Your task to perform on an android device: turn off priority inbox in the gmail app Image 0: 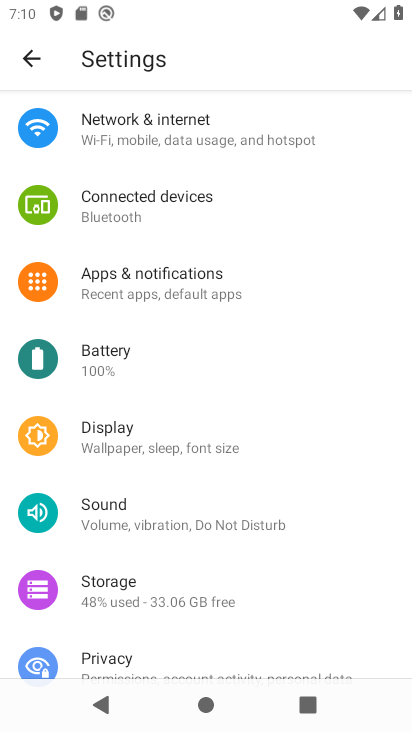
Step 0: press home button
Your task to perform on an android device: turn off priority inbox in the gmail app Image 1: 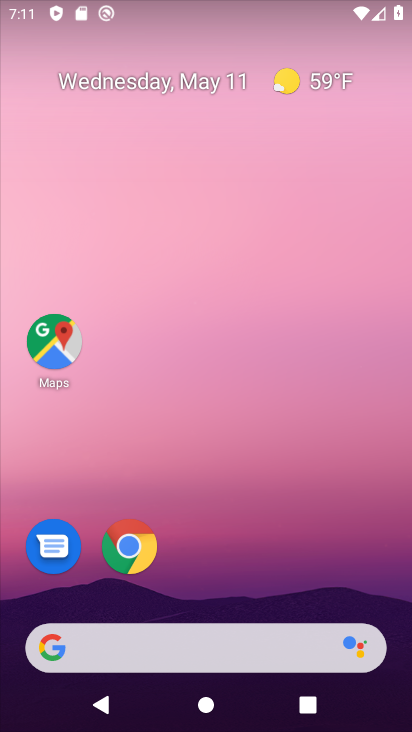
Step 1: drag from (329, 569) to (285, 46)
Your task to perform on an android device: turn off priority inbox in the gmail app Image 2: 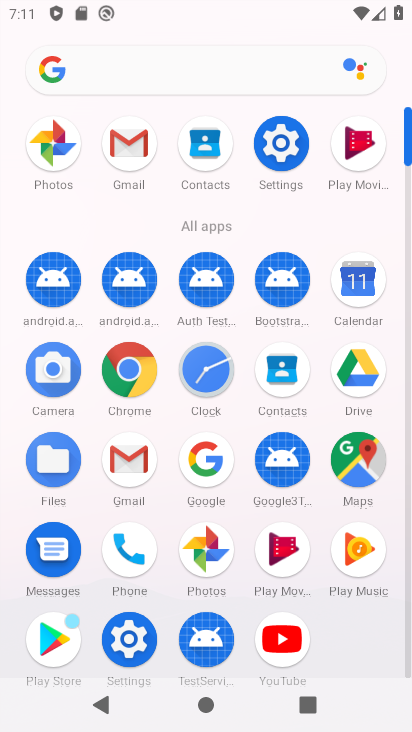
Step 2: click (142, 452)
Your task to perform on an android device: turn off priority inbox in the gmail app Image 3: 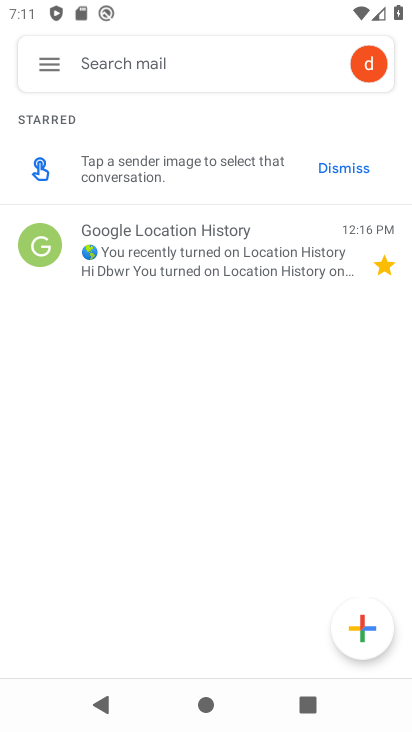
Step 3: click (48, 69)
Your task to perform on an android device: turn off priority inbox in the gmail app Image 4: 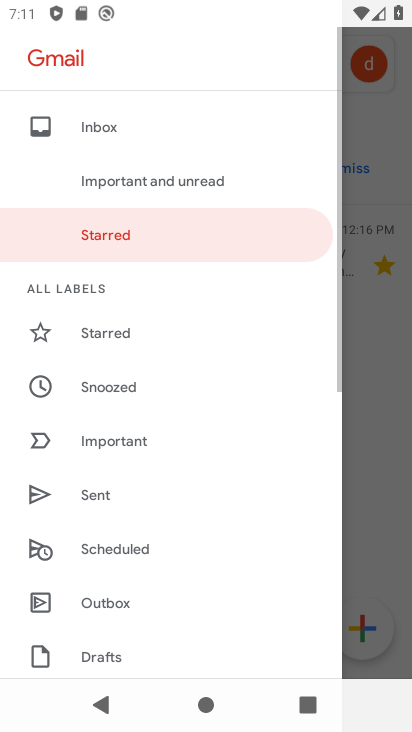
Step 4: drag from (169, 460) to (146, 121)
Your task to perform on an android device: turn off priority inbox in the gmail app Image 5: 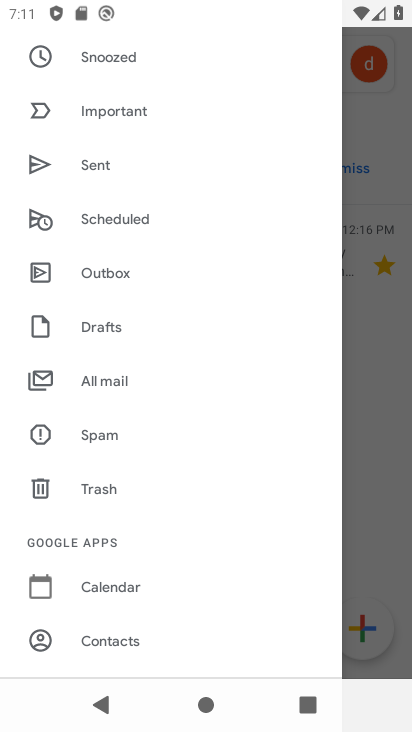
Step 5: drag from (160, 586) to (122, 311)
Your task to perform on an android device: turn off priority inbox in the gmail app Image 6: 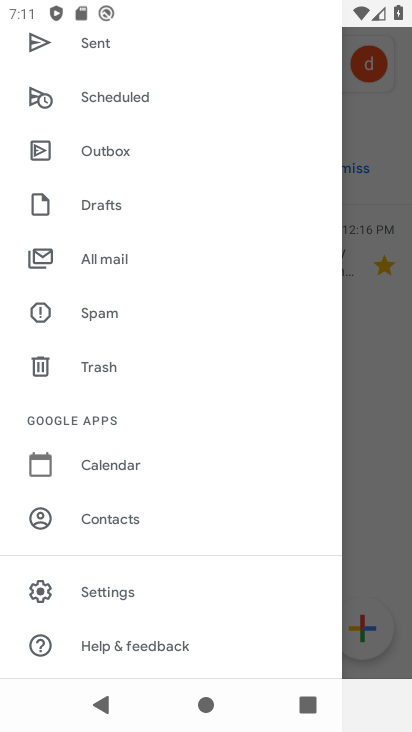
Step 6: click (138, 591)
Your task to perform on an android device: turn off priority inbox in the gmail app Image 7: 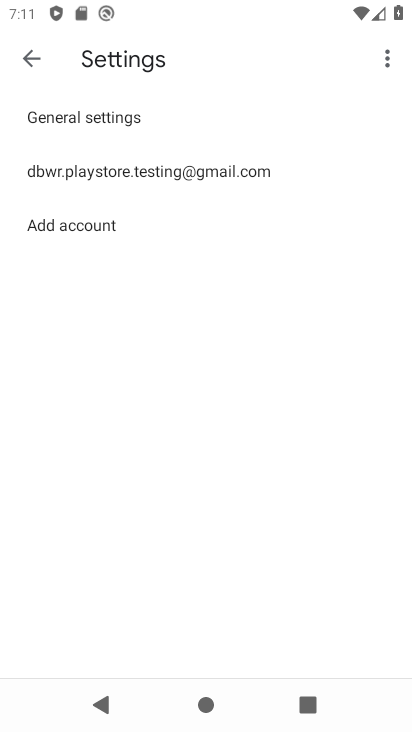
Step 7: click (100, 165)
Your task to perform on an android device: turn off priority inbox in the gmail app Image 8: 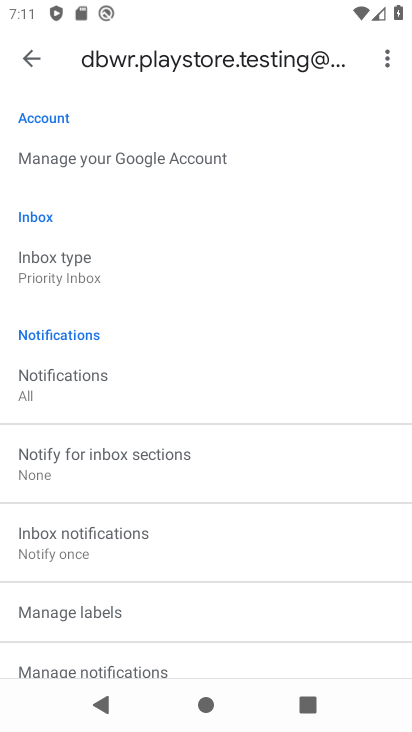
Step 8: click (120, 261)
Your task to perform on an android device: turn off priority inbox in the gmail app Image 9: 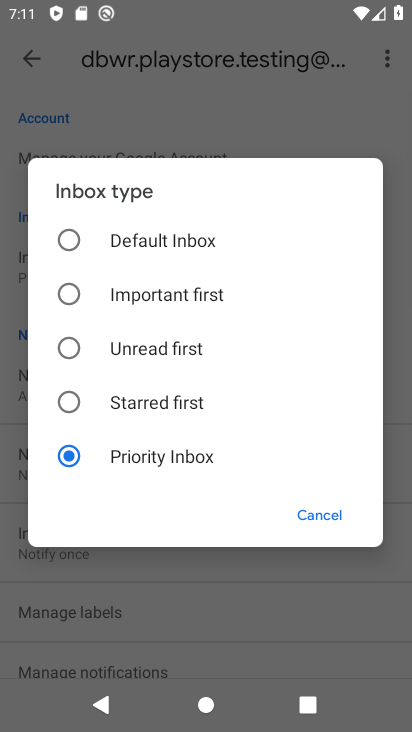
Step 9: click (108, 249)
Your task to perform on an android device: turn off priority inbox in the gmail app Image 10: 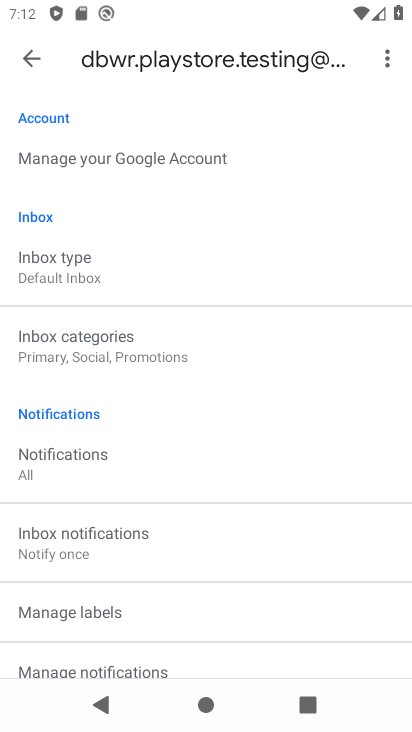
Step 10: task complete